Your task to perform on an android device: Open calendar and show me the fourth week of next month Image 0: 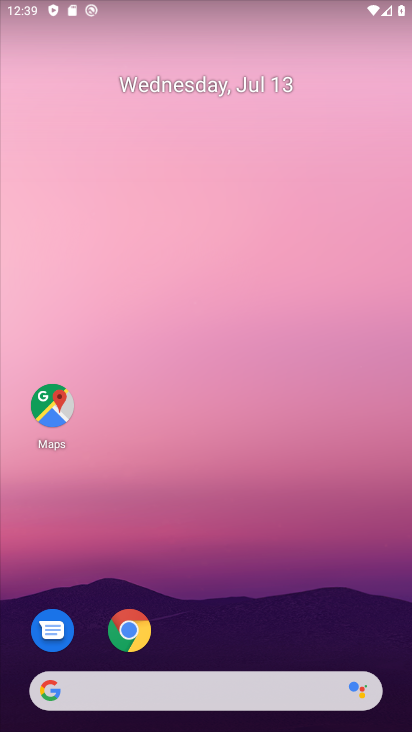
Step 0: drag from (211, 592) to (106, 37)
Your task to perform on an android device: Open calendar and show me the fourth week of next month Image 1: 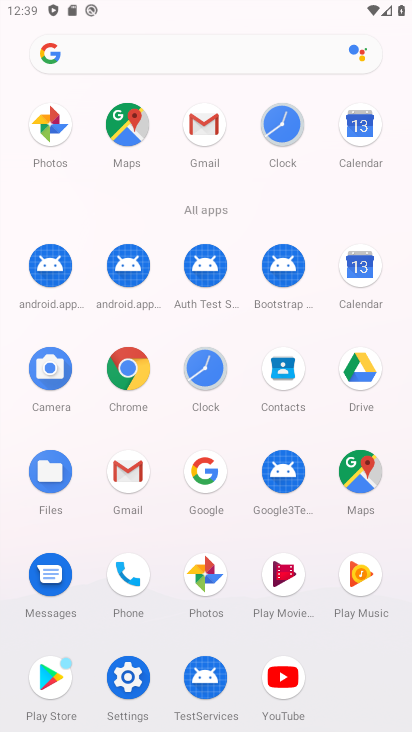
Step 1: click (359, 126)
Your task to perform on an android device: Open calendar and show me the fourth week of next month Image 2: 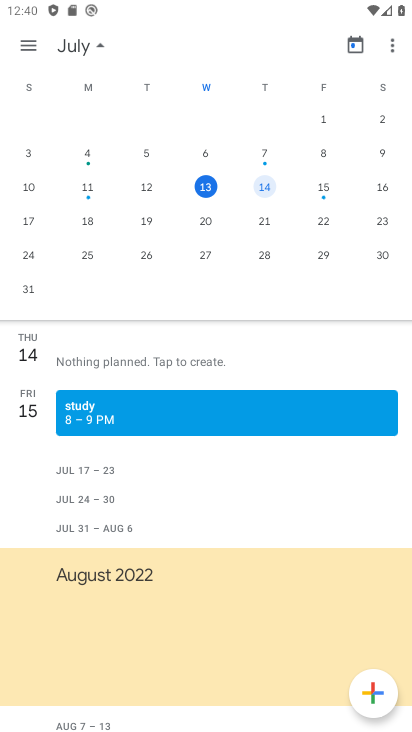
Step 2: drag from (344, 234) to (15, 250)
Your task to perform on an android device: Open calendar and show me the fourth week of next month Image 3: 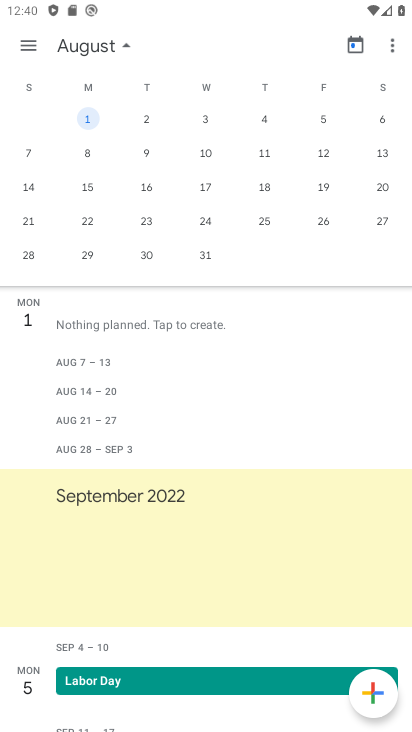
Step 3: click (24, 254)
Your task to perform on an android device: Open calendar and show me the fourth week of next month Image 4: 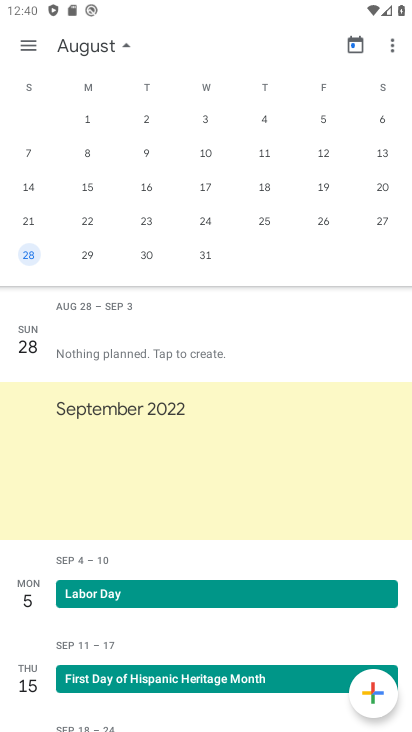
Step 4: task complete